Your task to perform on an android device: delete location history Image 0: 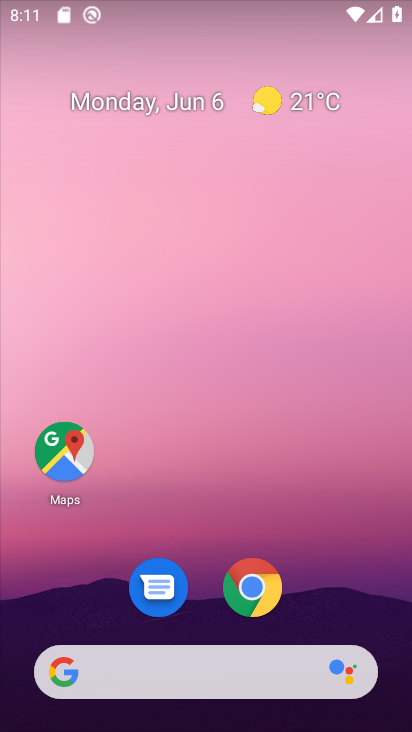
Step 0: drag from (361, 544) to (342, 146)
Your task to perform on an android device: delete location history Image 1: 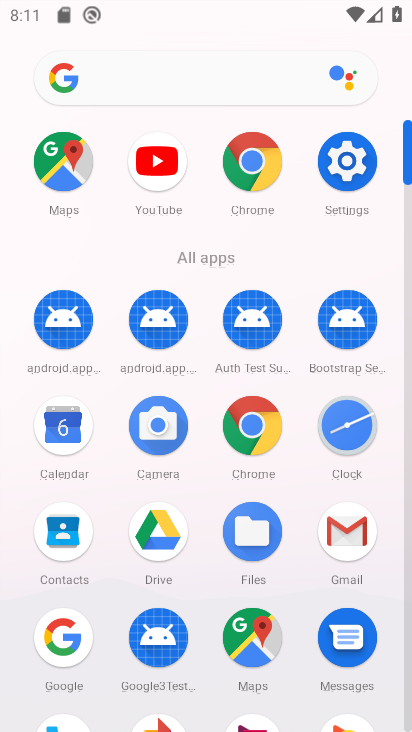
Step 1: click (354, 177)
Your task to perform on an android device: delete location history Image 2: 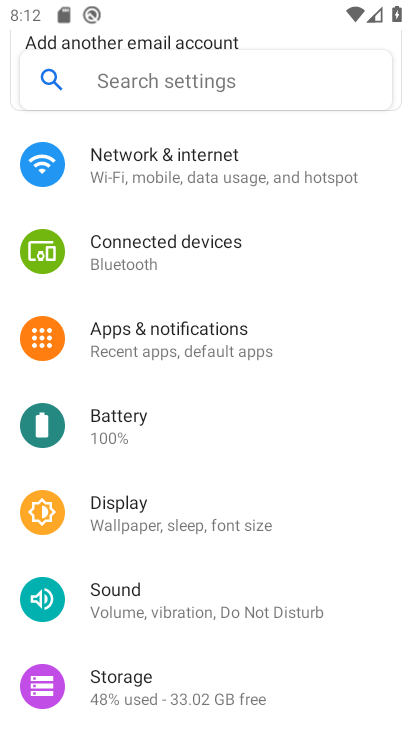
Step 2: drag from (187, 574) to (215, 209)
Your task to perform on an android device: delete location history Image 3: 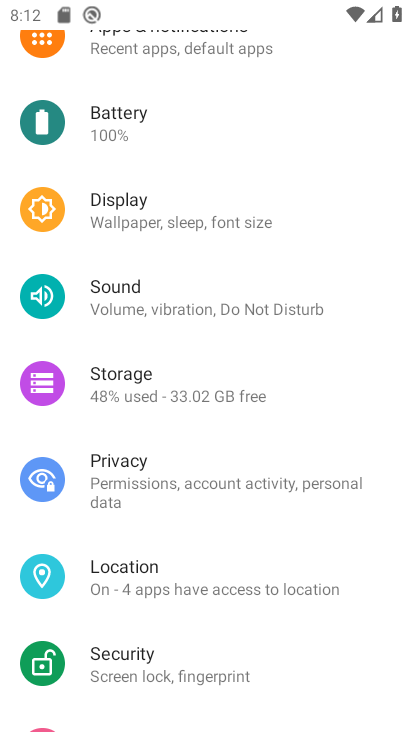
Step 3: click (183, 581)
Your task to perform on an android device: delete location history Image 4: 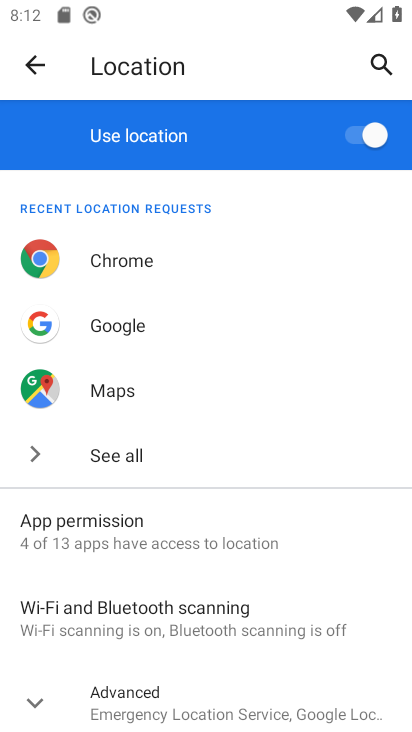
Step 4: drag from (202, 647) to (223, 400)
Your task to perform on an android device: delete location history Image 5: 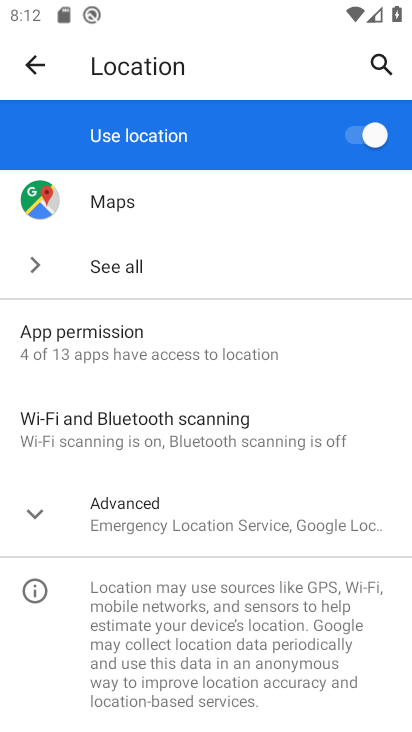
Step 5: click (220, 530)
Your task to perform on an android device: delete location history Image 6: 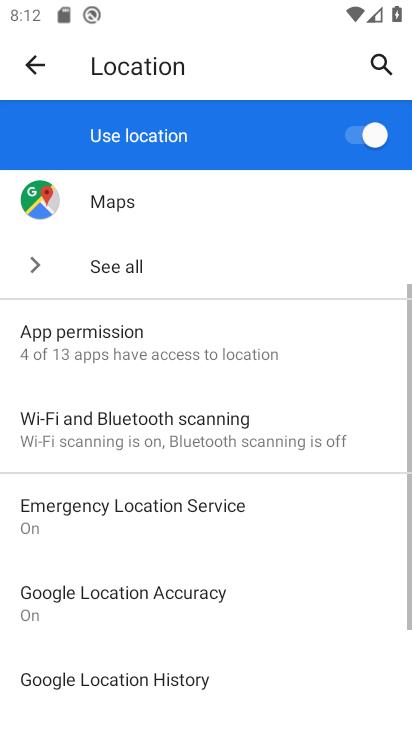
Step 6: drag from (175, 670) to (181, 444)
Your task to perform on an android device: delete location history Image 7: 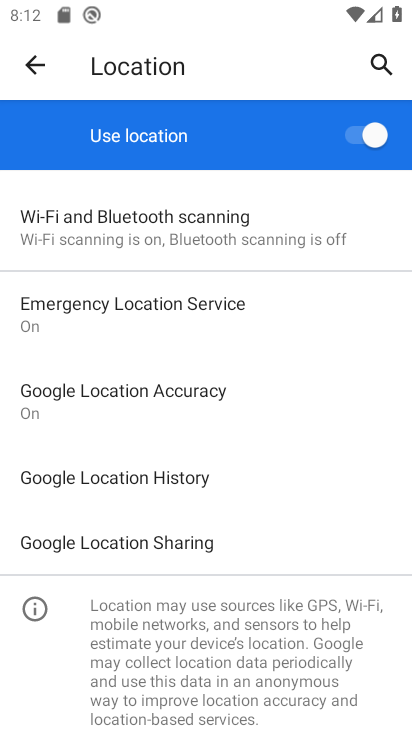
Step 7: click (190, 474)
Your task to perform on an android device: delete location history Image 8: 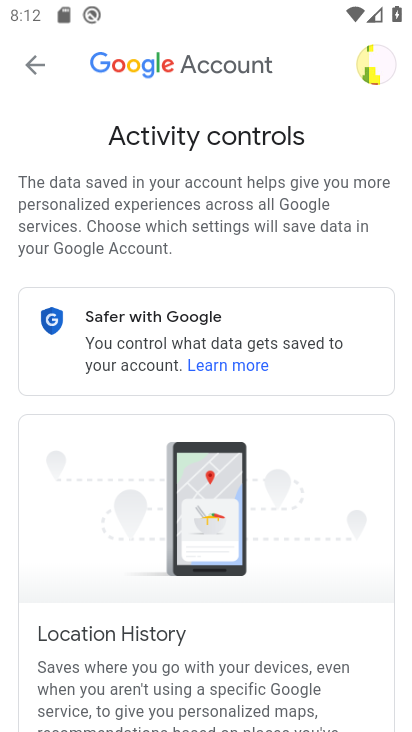
Step 8: drag from (242, 674) to (248, 311)
Your task to perform on an android device: delete location history Image 9: 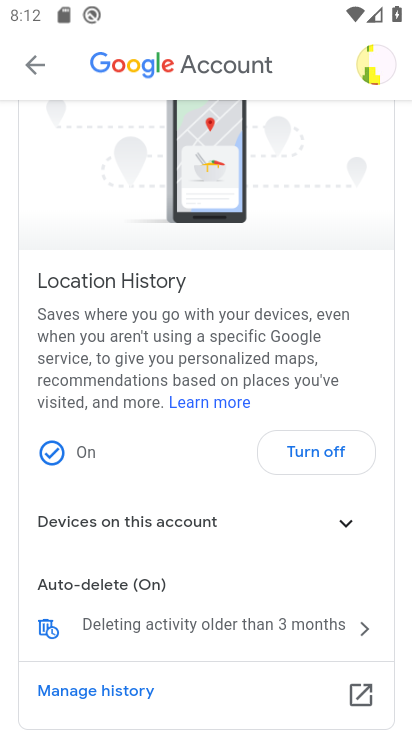
Step 9: drag from (162, 677) to (193, 395)
Your task to perform on an android device: delete location history Image 10: 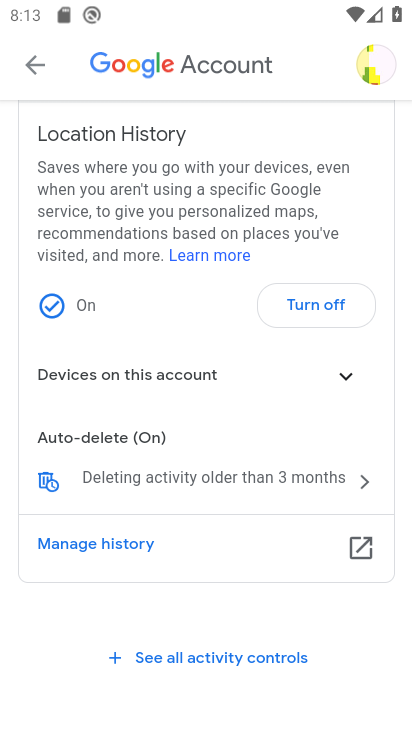
Step 10: click (126, 552)
Your task to perform on an android device: delete location history Image 11: 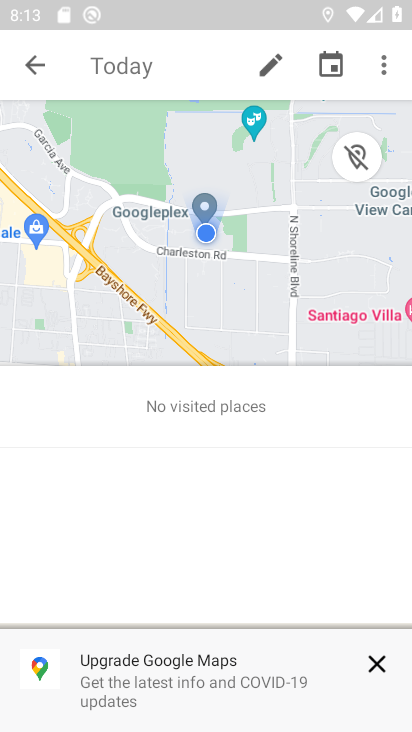
Step 11: click (388, 64)
Your task to perform on an android device: delete location history Image 12: 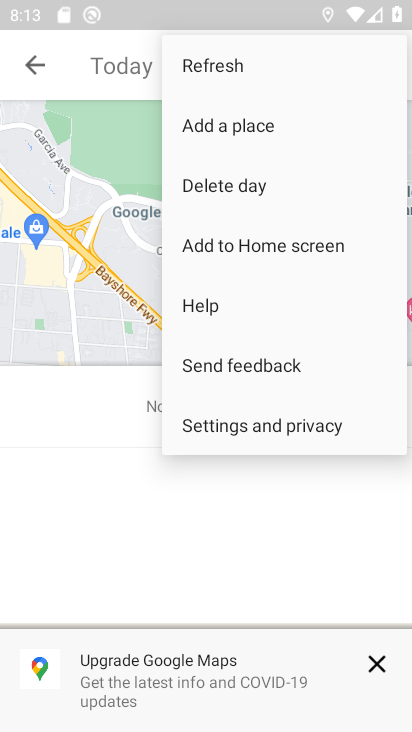
Step 12: click (216, 422)
Your task to perform on an android device: delete location history Image 13: 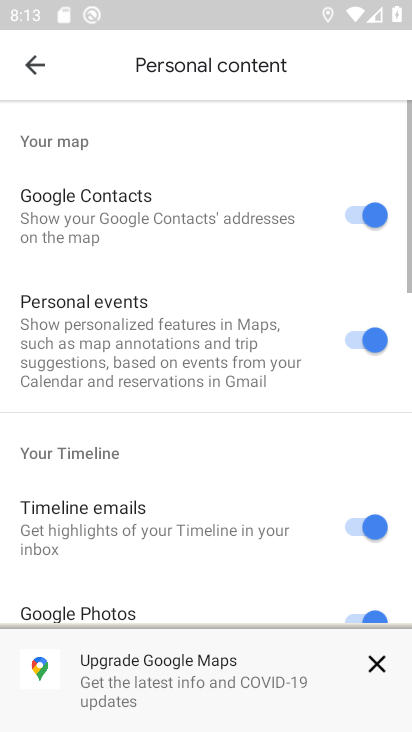
Step 13: drag from (202, 402) to (203, 102)
Your task to perform on an android device: delete location history Image 14: 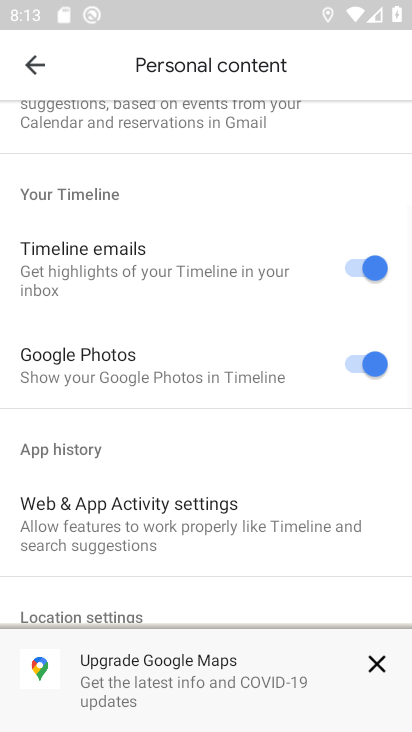
Step 14: drag from (202, 517) to (234, 218)
Your task to perform on an android device: delete location history Image 15: 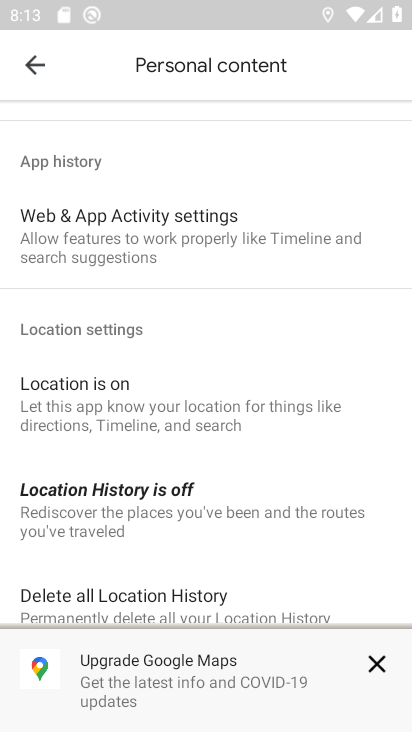
Step 15: drag from (243, 539) to (241, 302)
Your task to perform on an android device: delete location history Image 16: 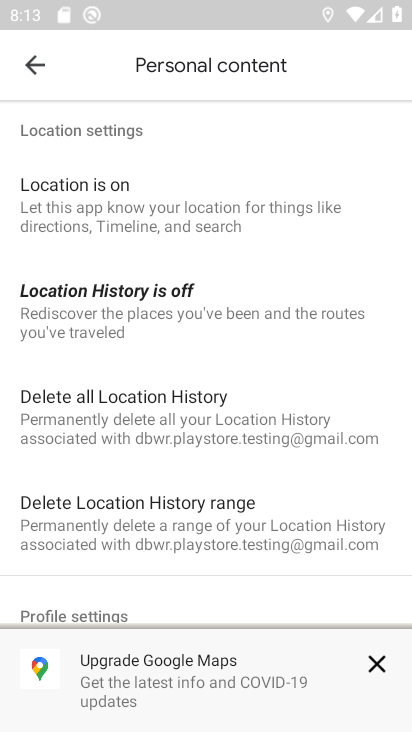
Step 16: click (206, 414)
Your task to perform on an android device: delete location history Image 17: 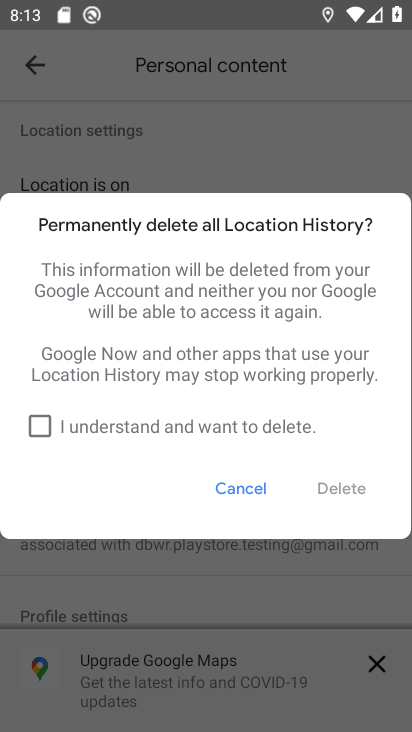
Step 17: click (41, 432)
Your task to perform on an android device: delete location history Image 18: 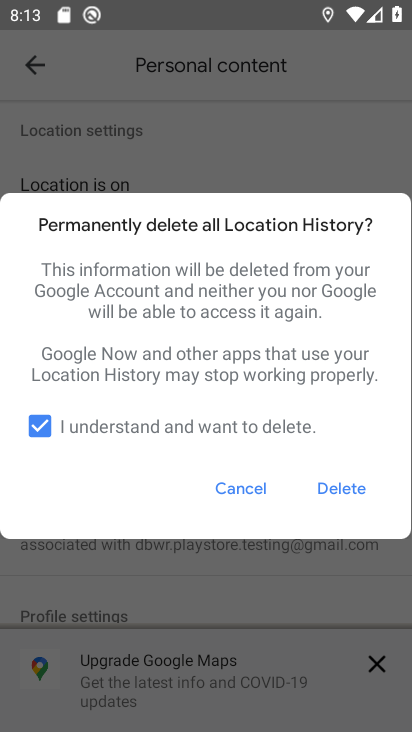
Step 18: click (348, 489)
Your task to perform on an android device: delete location history Image 19: 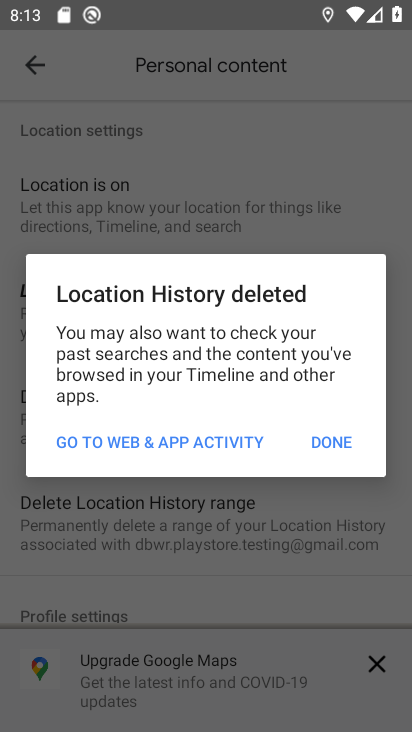
Step 19: click (326, 441)
Your task to perform on an android device: delete location history Image 20: 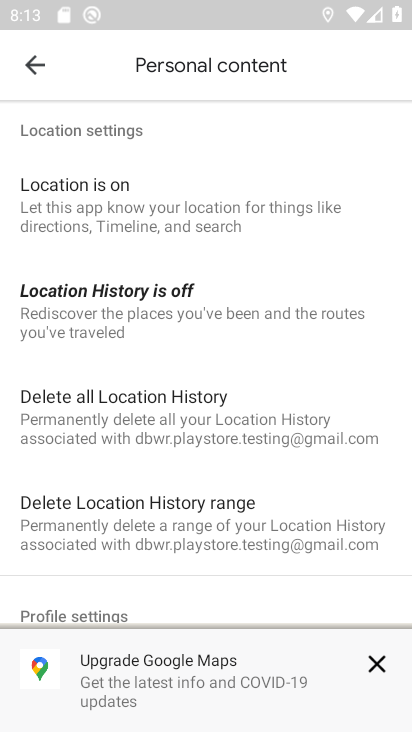
Step 20: click (230, 421)
Your task to perform on an android device: delete location history Image 21: 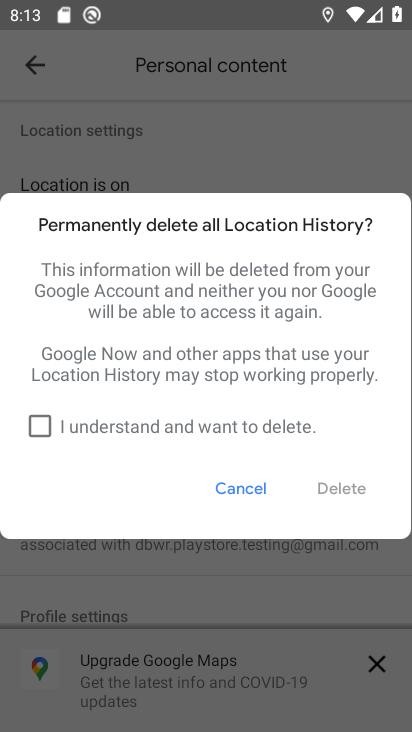
Step 21: click (48, 423)
Your task to perform on an android device: delete location history Image 22: 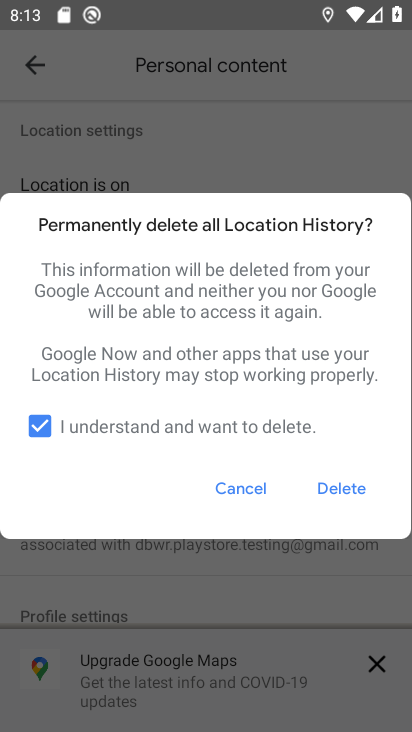
Step 22: click (340, 491)
Your task to perform on an android device: delete location history Image 23: 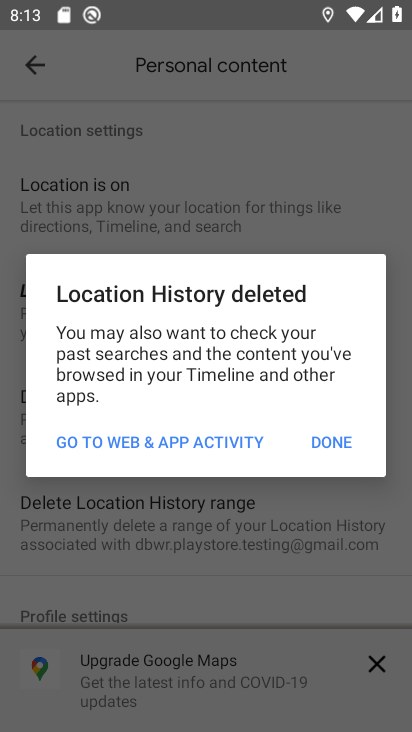
Step 23: task complete